Your task to perform on an android device: Open calendar and show me the first week of next month Image 0: 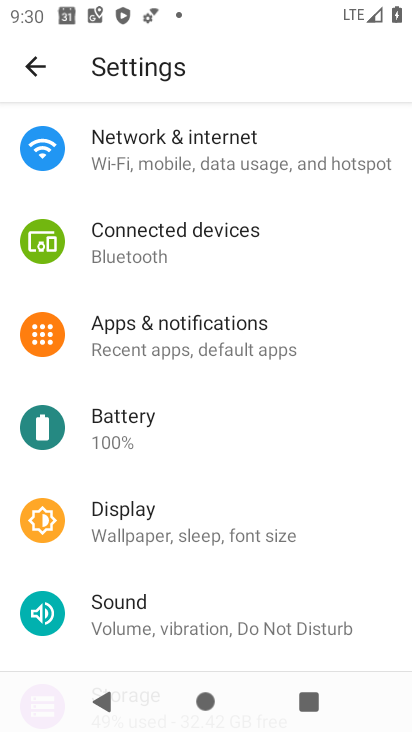
Step 0: press home button
Your task to perform on an android device: Open calendar and show me the first week of next month Image 1: 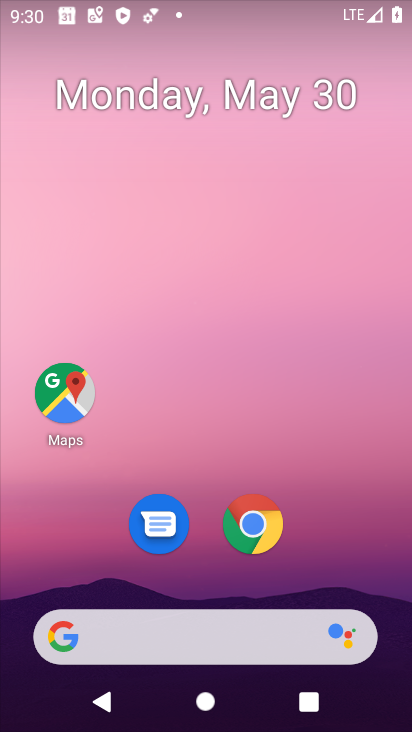
Step 1: drag from (324, 563) to (303, 0)
Your task to perform on an android device: Open calendar and show me the first week of next month Image 2: 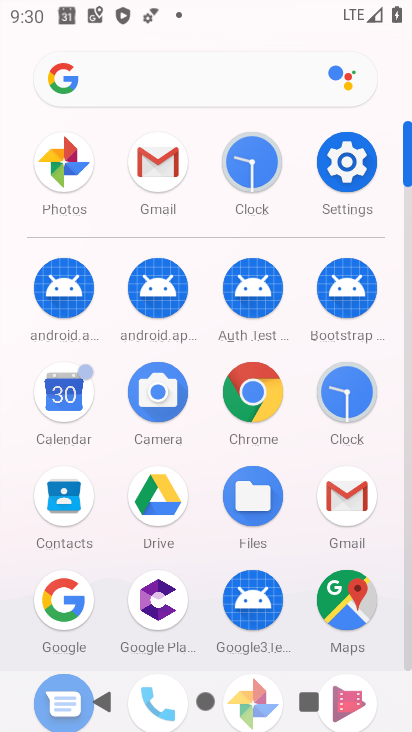
Step 2: click (73, 388)
Your task to perform on an android device: Open calendar and show me the first week of next month Image 3: 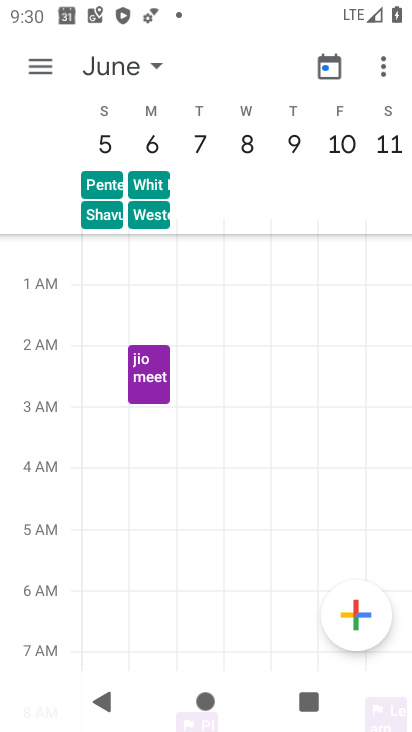
Step 3: task complete